Your task to perform on an android device: Go to Google maps Image 0: 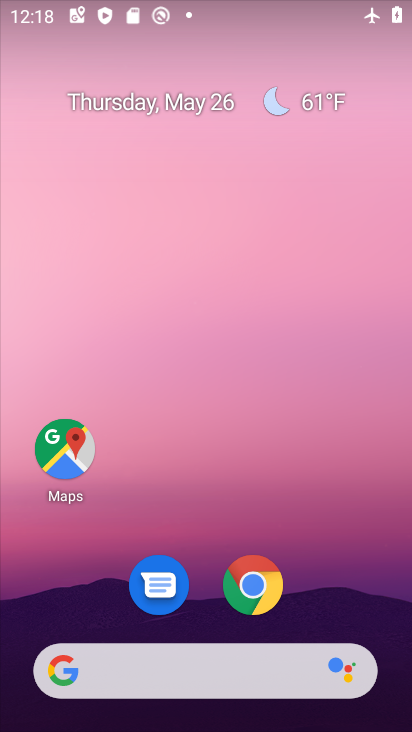
Step 0: click (55, 440)
Your task to perform on an android device: Go to Google maps Image 1: 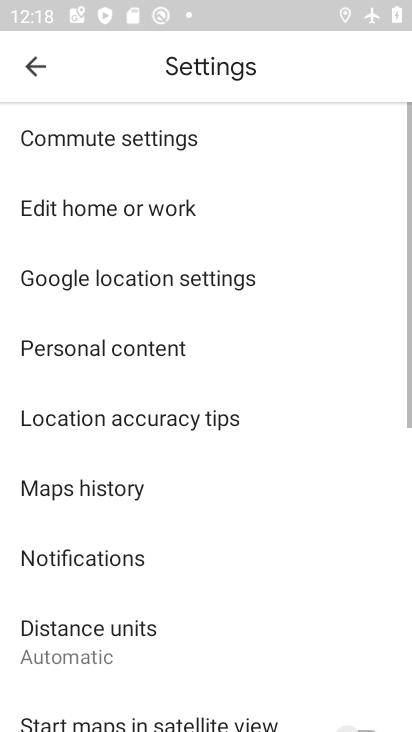
Step 1: click (28, 65)
Your task to perform on an android device: Go to Google maps Image 2: 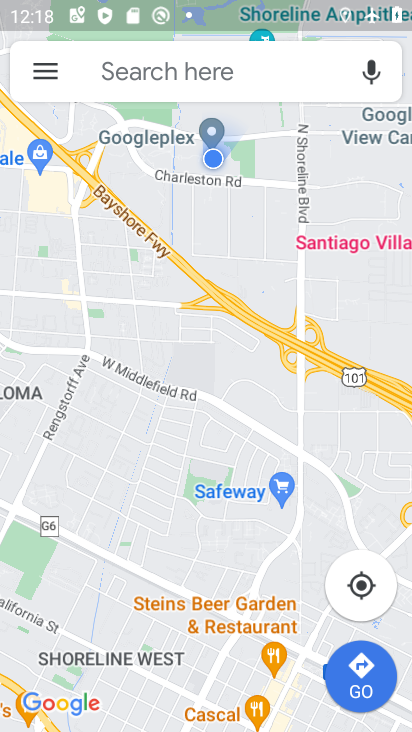
Step 2: task complete